Your task to perform on an android device: add a contact in the contacts app Image 0: 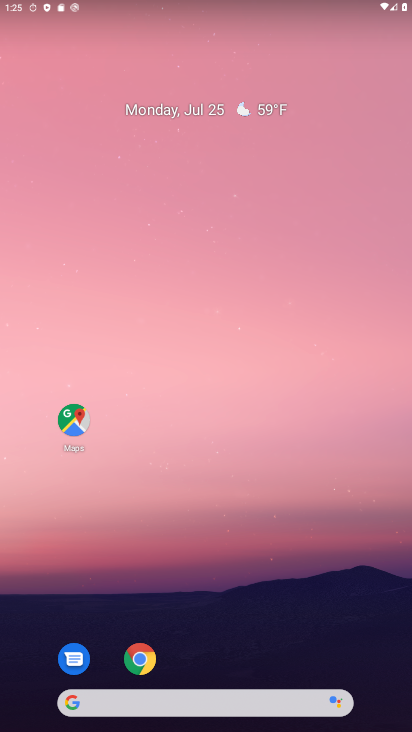
Step 0: drag from (317, 625) to (315, 0)
Your task to perform on an android device: add a contact in the contacts app Image 1: 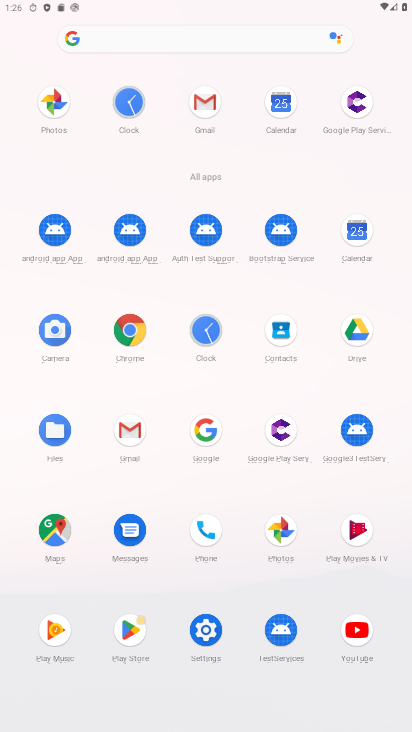
Step 1: click (278, 340)
Your task to perform on an android device: add a contact in the contacts app Image 2: 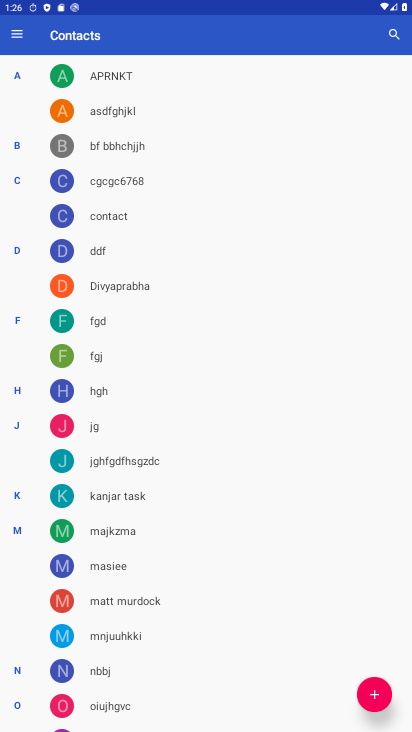
Step 2: click (365, 698)
Your task to perform on an android device: add a contact in the contacts app Image 3: 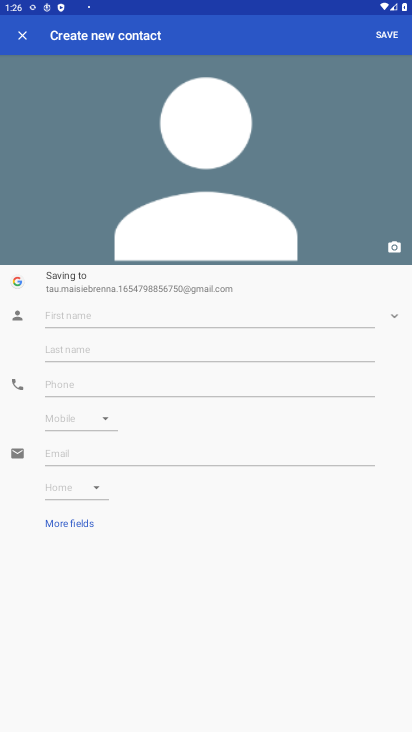
Step 3: click (46, 319)
Your task to perform on an android device: add a contact in the contacts app Image 4: 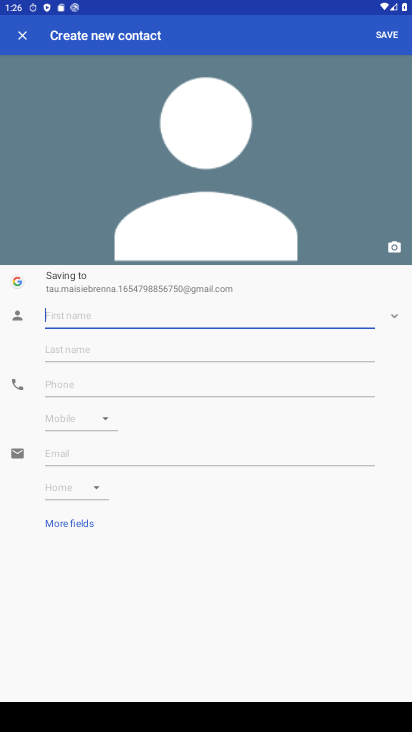
Step 4: type "appy"
Your task to perform on an android device: add a contact in the contacts app Image 5: 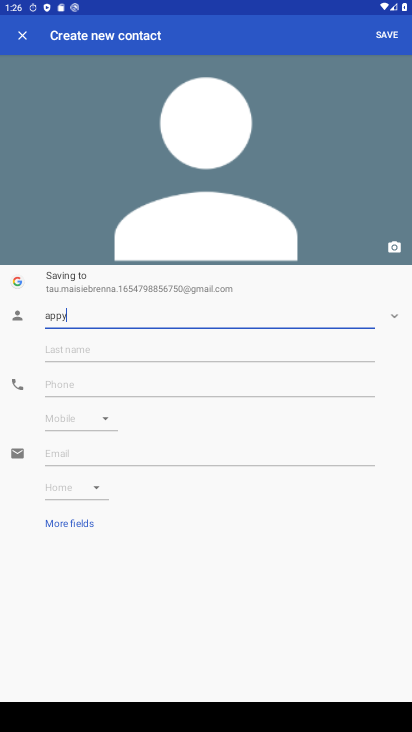
Step 5: click (96, 376)
Your task to perform on an android device: add a contact in the contacts app Image 6: 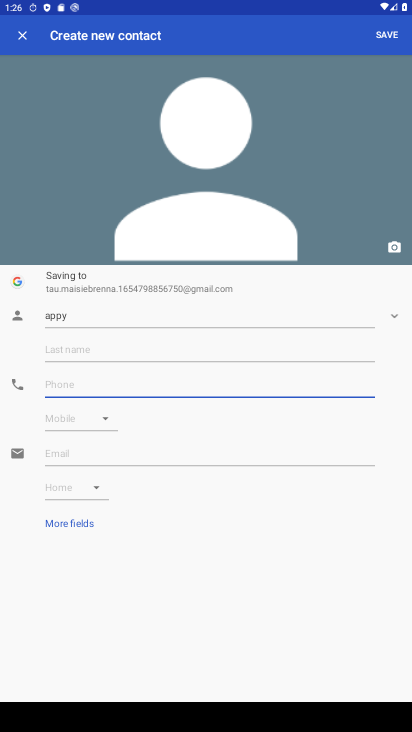
Step 6: type "8776556544"
Your task to perform on an android device: add a contact in the contacts app Image 7: 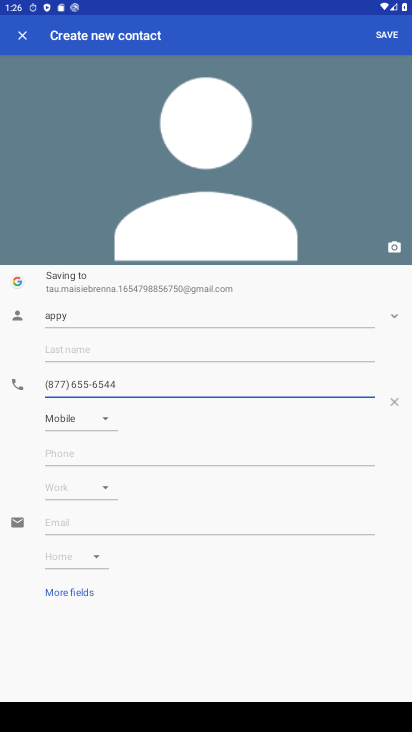
Step 7: click (396, 39)
Your task to perform on an android device: add a contact in the contacts app Image 8: 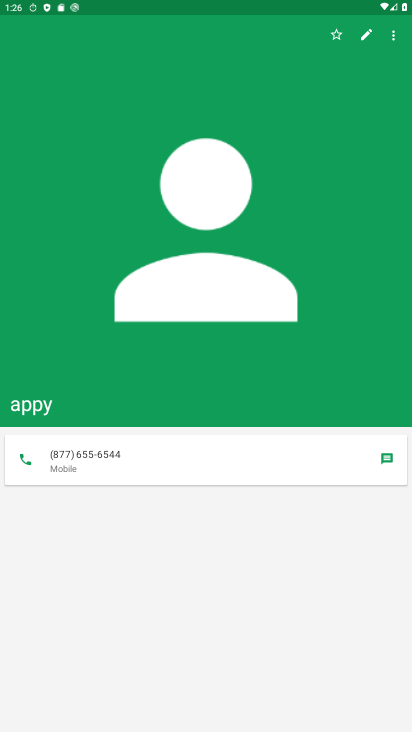
Step 8: task complete